Your task to perform on an android device: Go to accessibility settings Image 0: 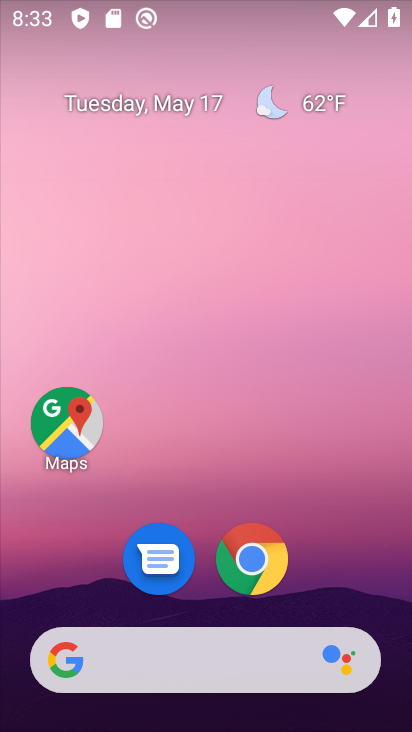
Step 0: drag from (205, 660) to (184, 133)
Your task to perform on an android device: Go to accessibility settings Image 1: 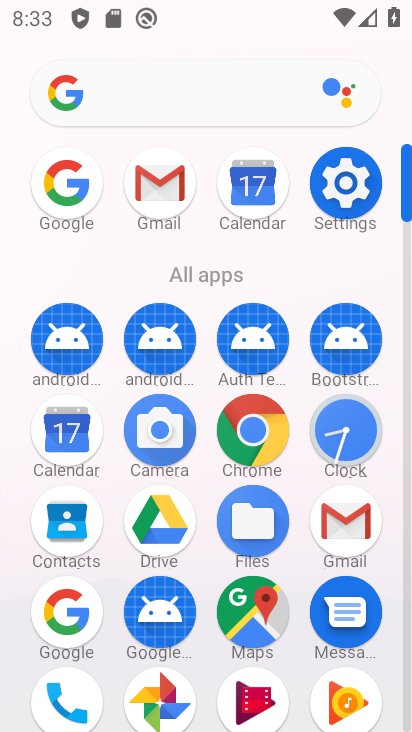
Step 1: click (329, 200)
Your task to perform on an android device: Go to accessibility settings Image 2: 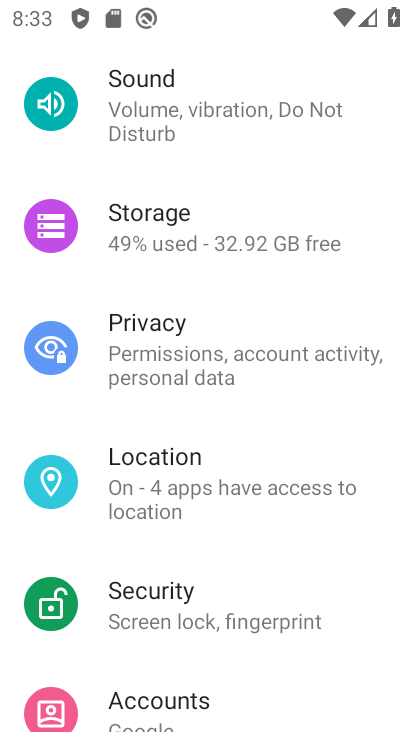
Step 2: drag from (201, 661) to (222, 226)
Your task to perform on an android device: Go to accessibility settings Image 3: 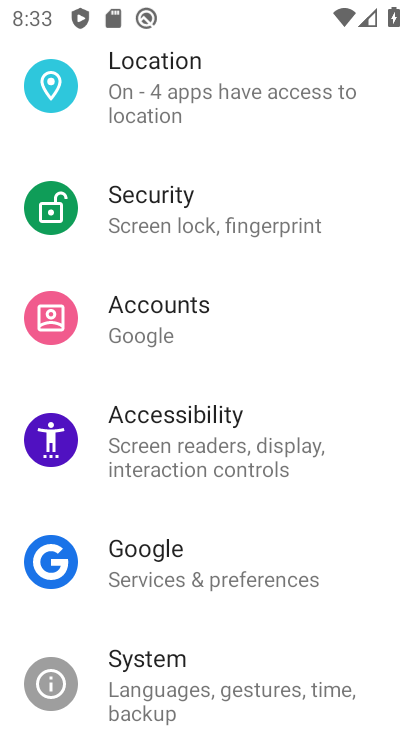
Step 3: click (218, 440)
Your task to perform on an android device: Go to accessibility settings Image 4: 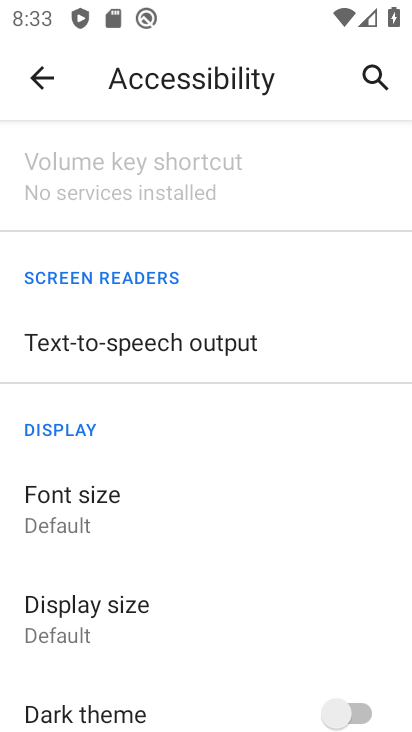
Step 4: task complete